Your task to perform on an android device: Show me the alarms in the clock app Image 0: 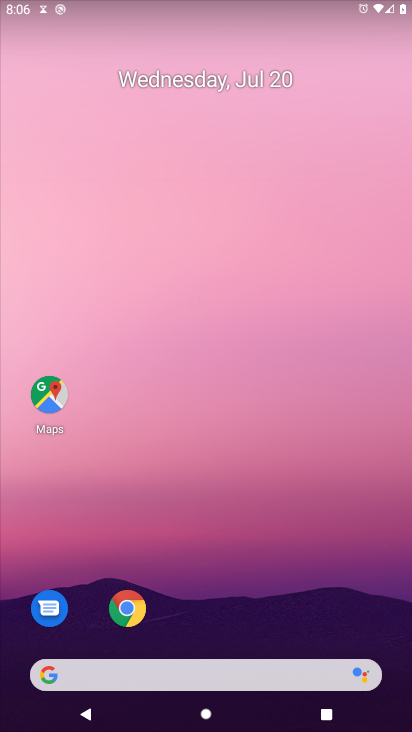
Step 0: drag from (230, 575) to (255, 51)
Your task to perform on an android device: Show me the alarms in the clock app Image 1: 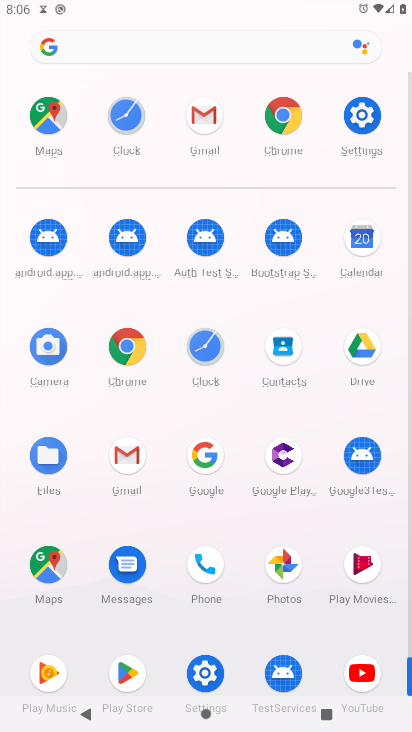
Step 1: click (198, 346)
Your task to perform on an android device: Show me the alarms in the clock app Image 2: 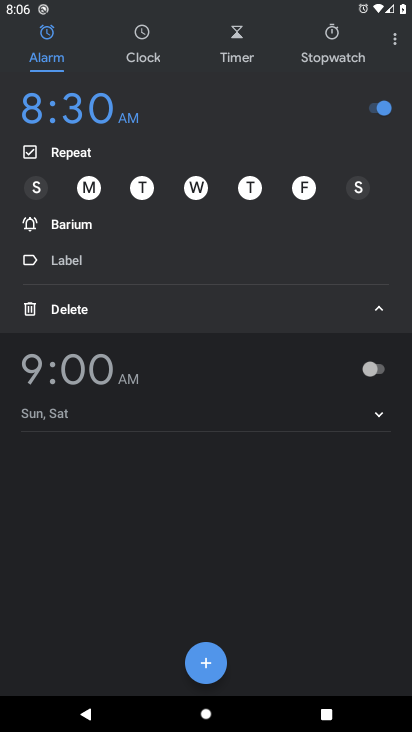
Step 2: task complete